Your task to perform on an android device: Open Google Maps and go to "Timeline" Image 0: 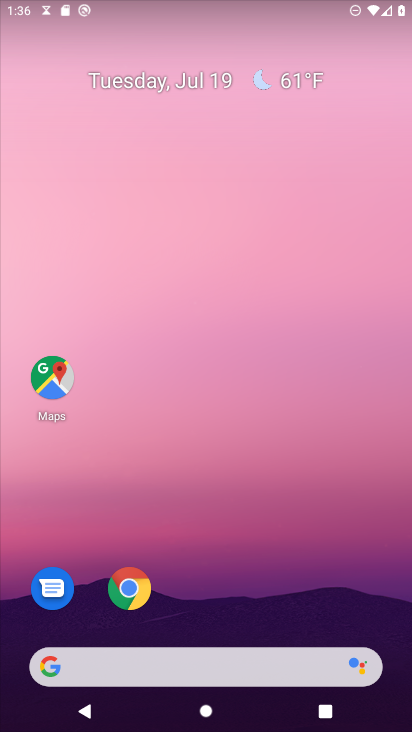
Step 0: press home button
Your task to perform on an android device: Open Google Maps and go to "Timeline" Image 1: 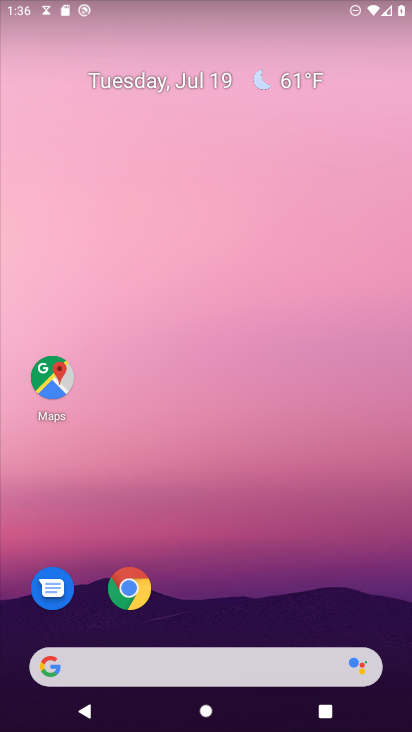
Step 1: click (49, 373)
Your task to perform on an android device: Open Google Maps and go to "Timeline" Image 2: 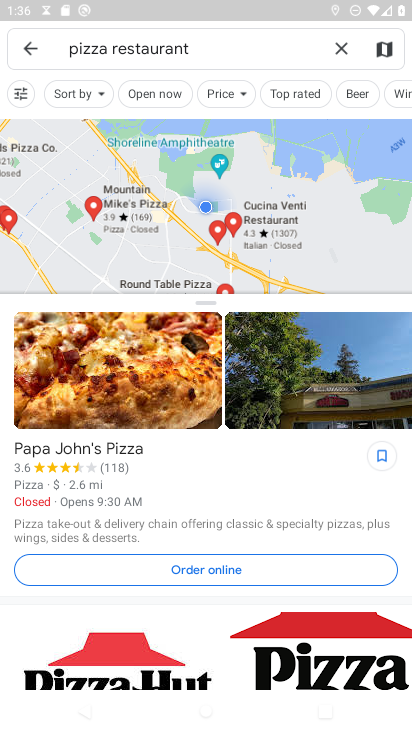
Step 2: click (22, 45)
Your task to perform on an android device: Open Google Maps and go to "Timeline" Image 3: 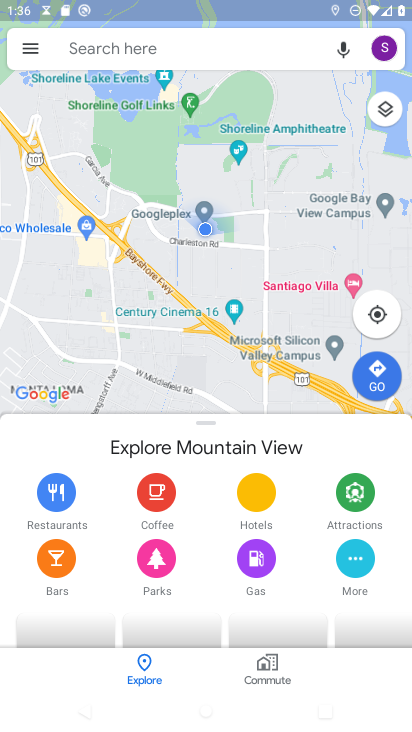
Step 3: click (28, 53)
Your task to perform on an android device: Open Google Maps and go to "Timeline" Image 4: 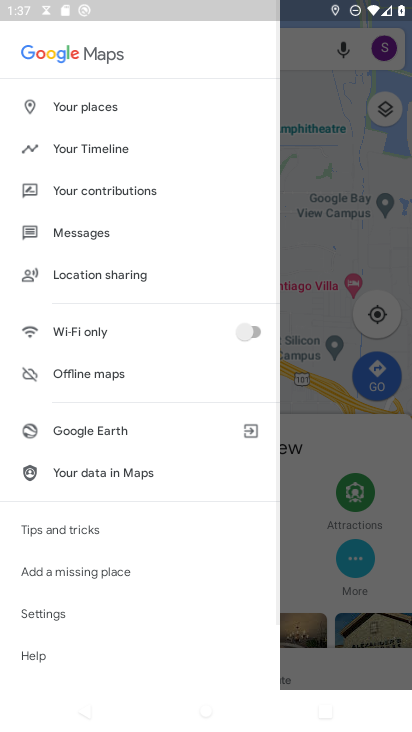
Step 4: click (86, 143)
Your task to perform on an android device: Open Google Maps and go to "Timeline" Image 5: 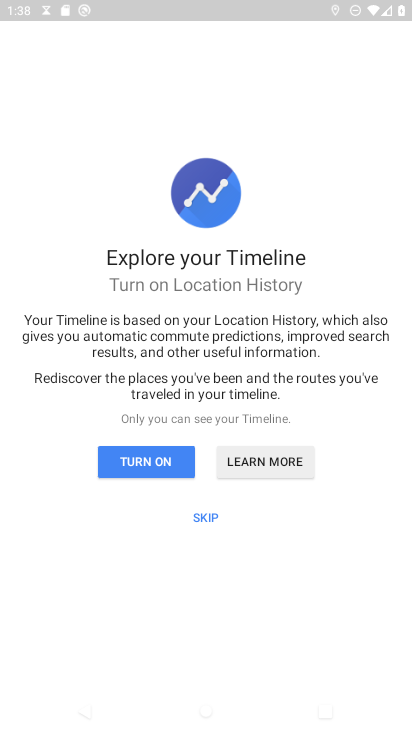
Step 5: click (208, 509)
Your task to perform on an android device: Open Google Maps and go to "Timeline" Image 6: 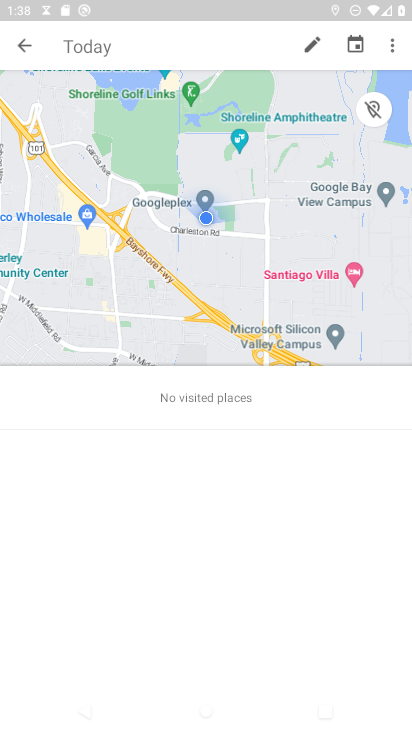
Step 6: task complete